Your task to perform on an android device: open app "Spotify" Image 0: 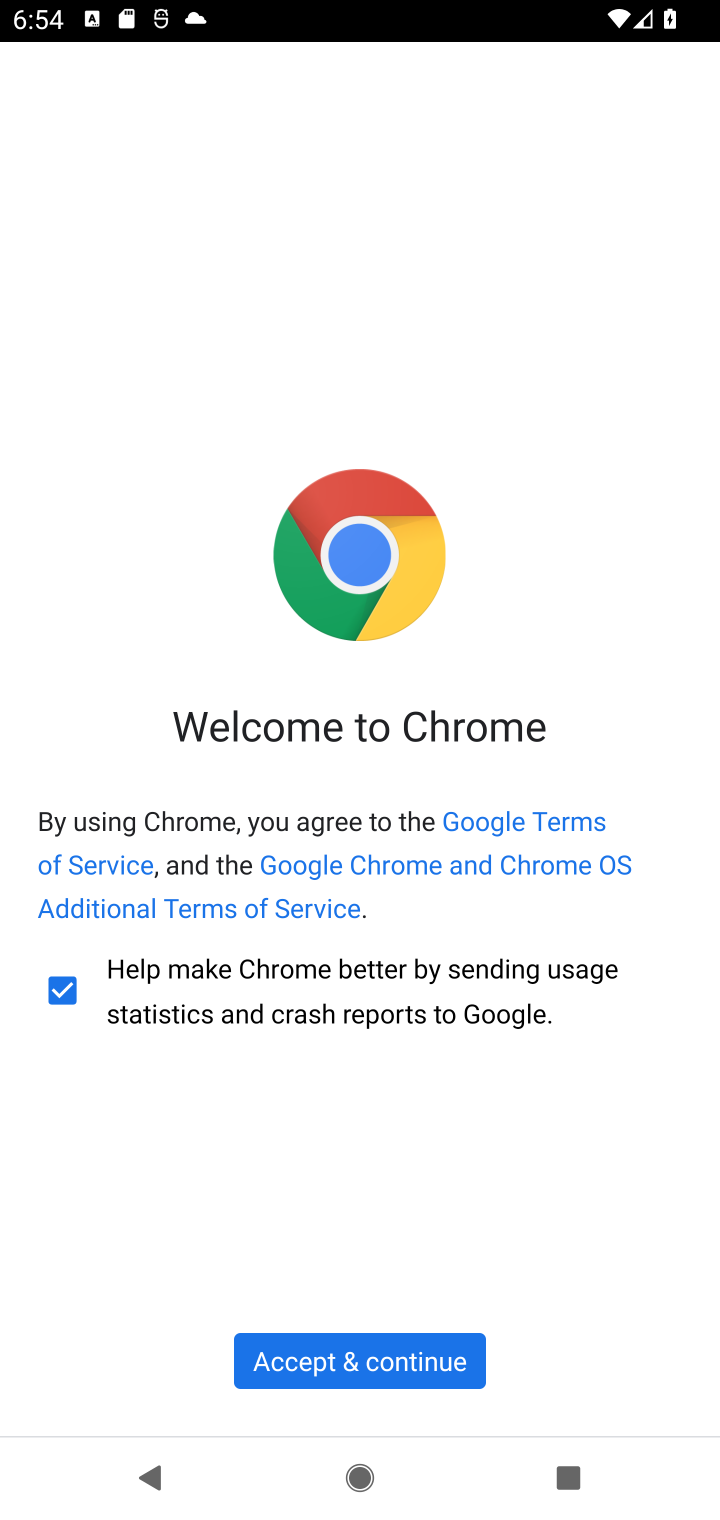
Step 0: press home button
Your task to perform on an android device: open app "Spotify" Image 1: 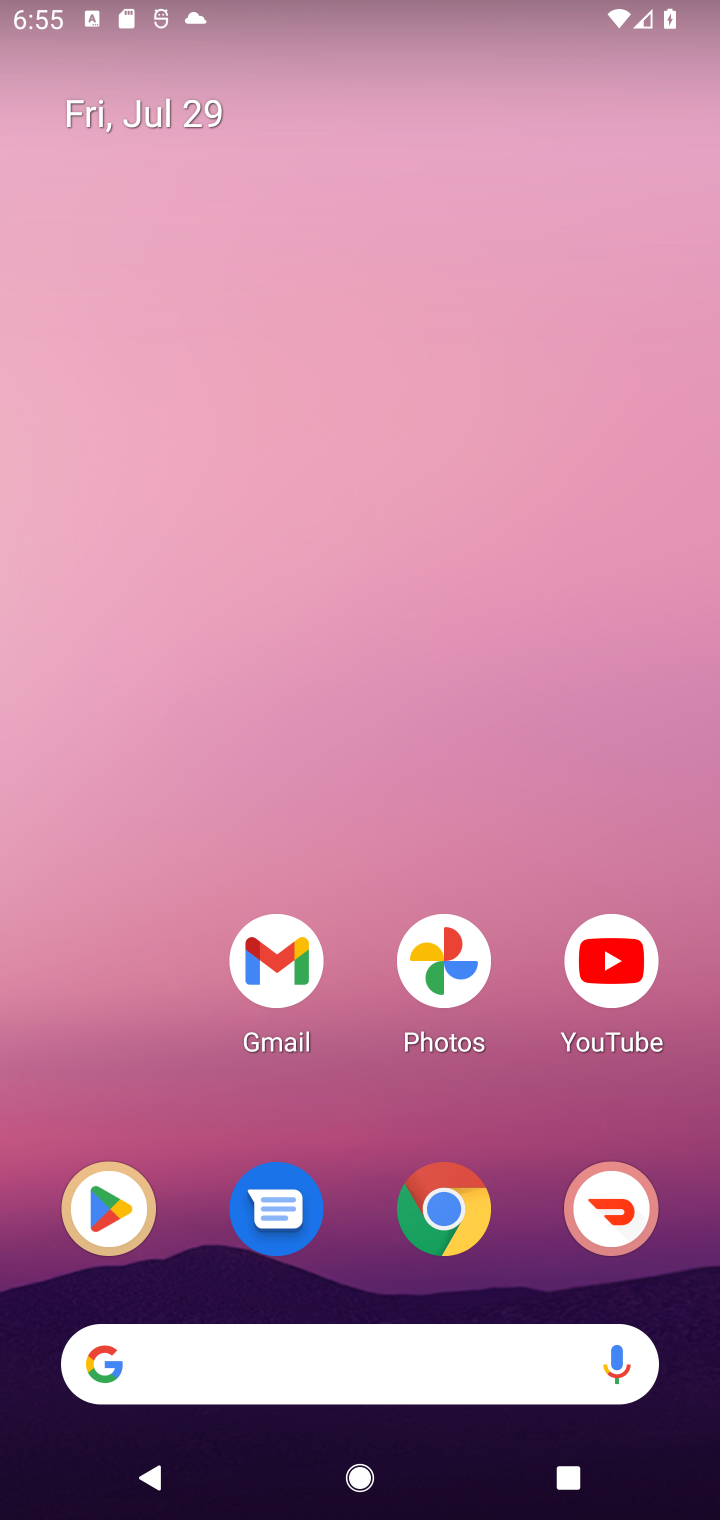
Step 1: click (121, 1236)
Your task to perform on an android device: open app "Spotify" Image 2: 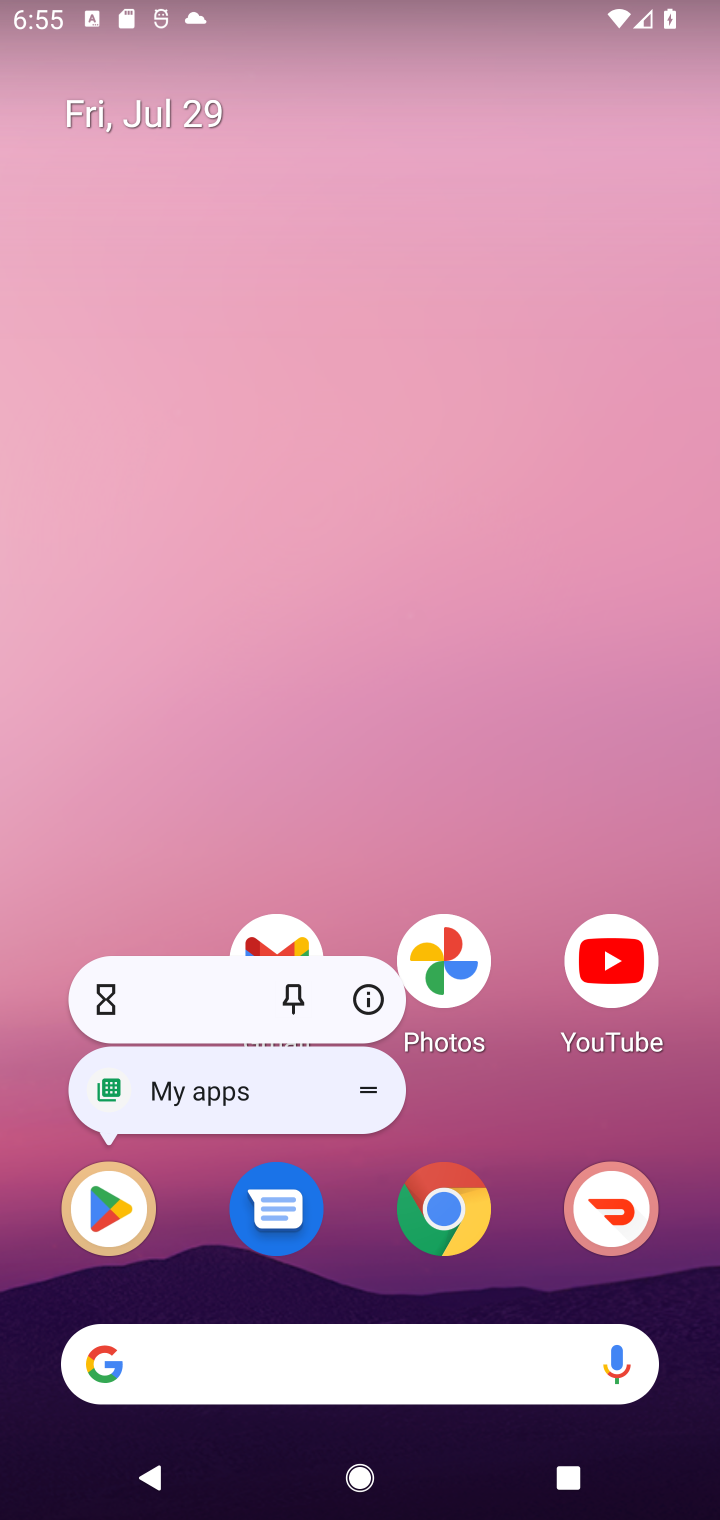
Step 2: click (122, 1217)
Your task to perform on an android device: open app "Spotify" Image 3: 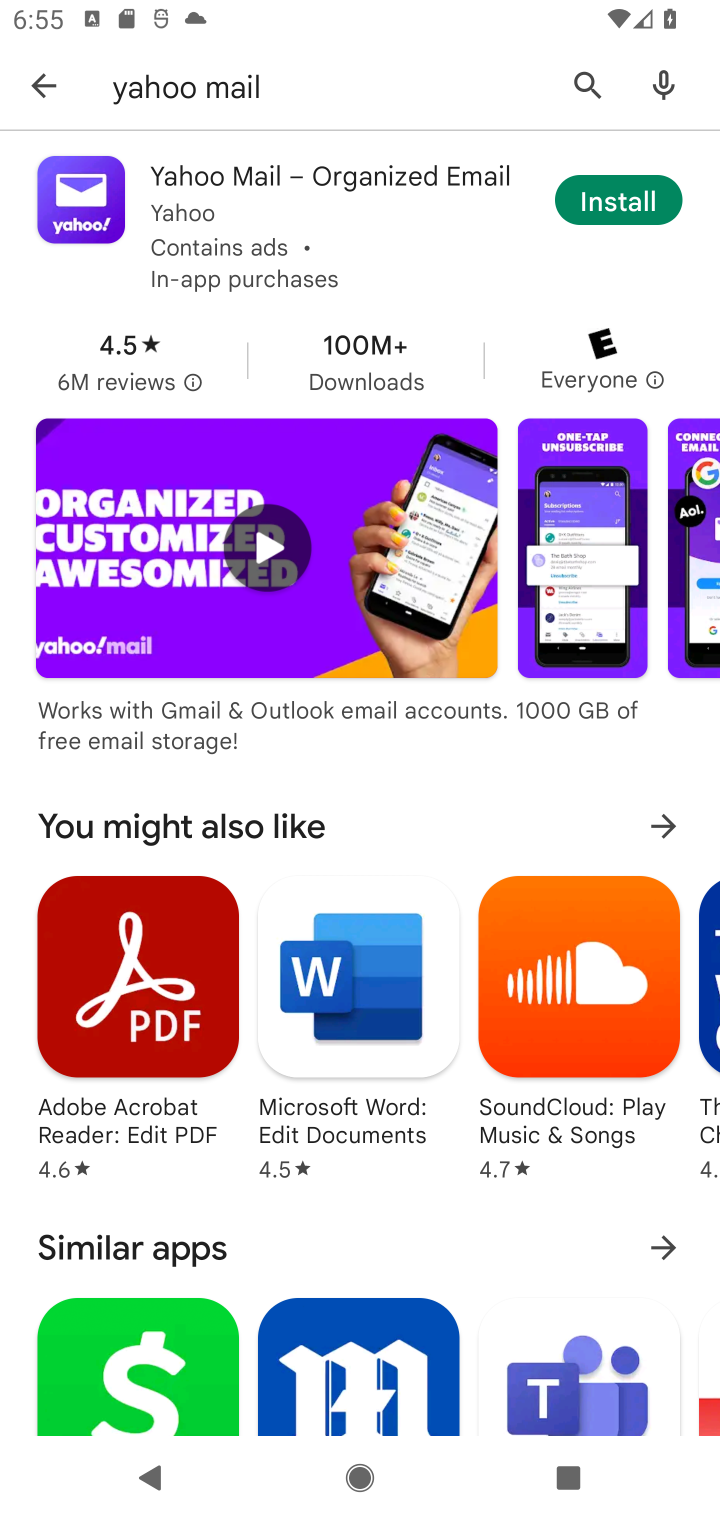
Step 3: click (575, 83)
Your task to perform on an android device: open app "Spotify" Image 4: 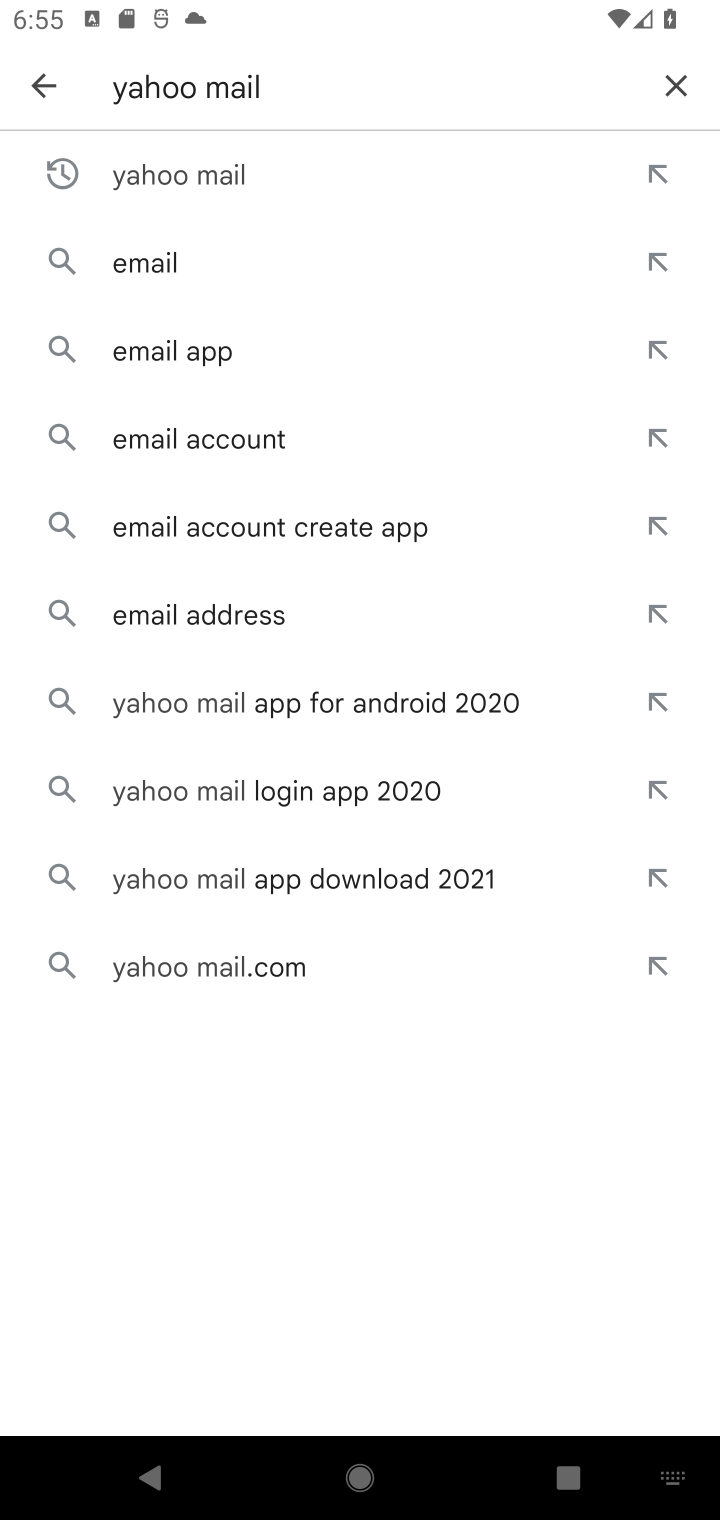
Step 4: click (680, 93)
Your task to perform on an android device: open app "Spotify" Image 5: 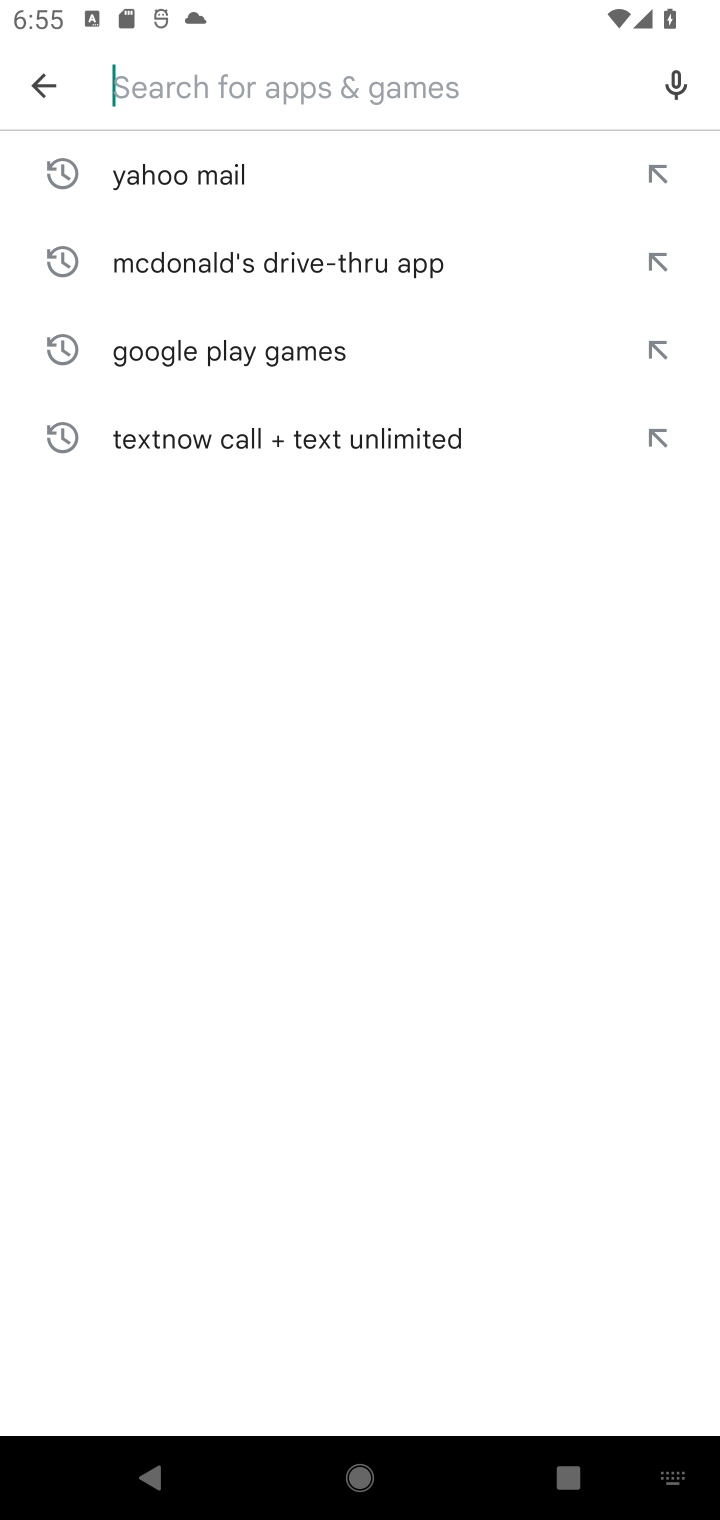
Step 5: type "sportify"
Your task to perform on an android device: open app "Spotify" Image 6: 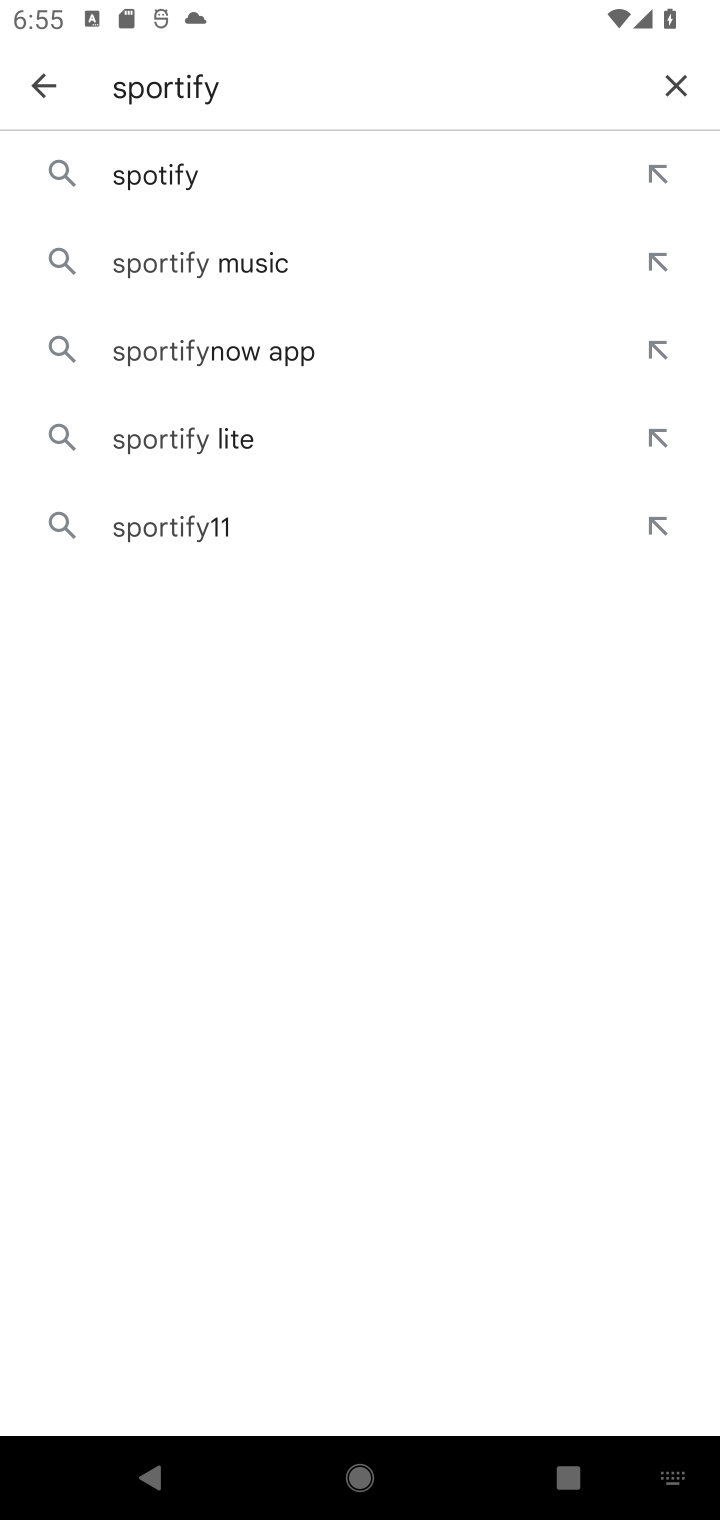
Step 6: click (164, 166)
Your task to perform on an android device: open app "Spotify" Image 7: 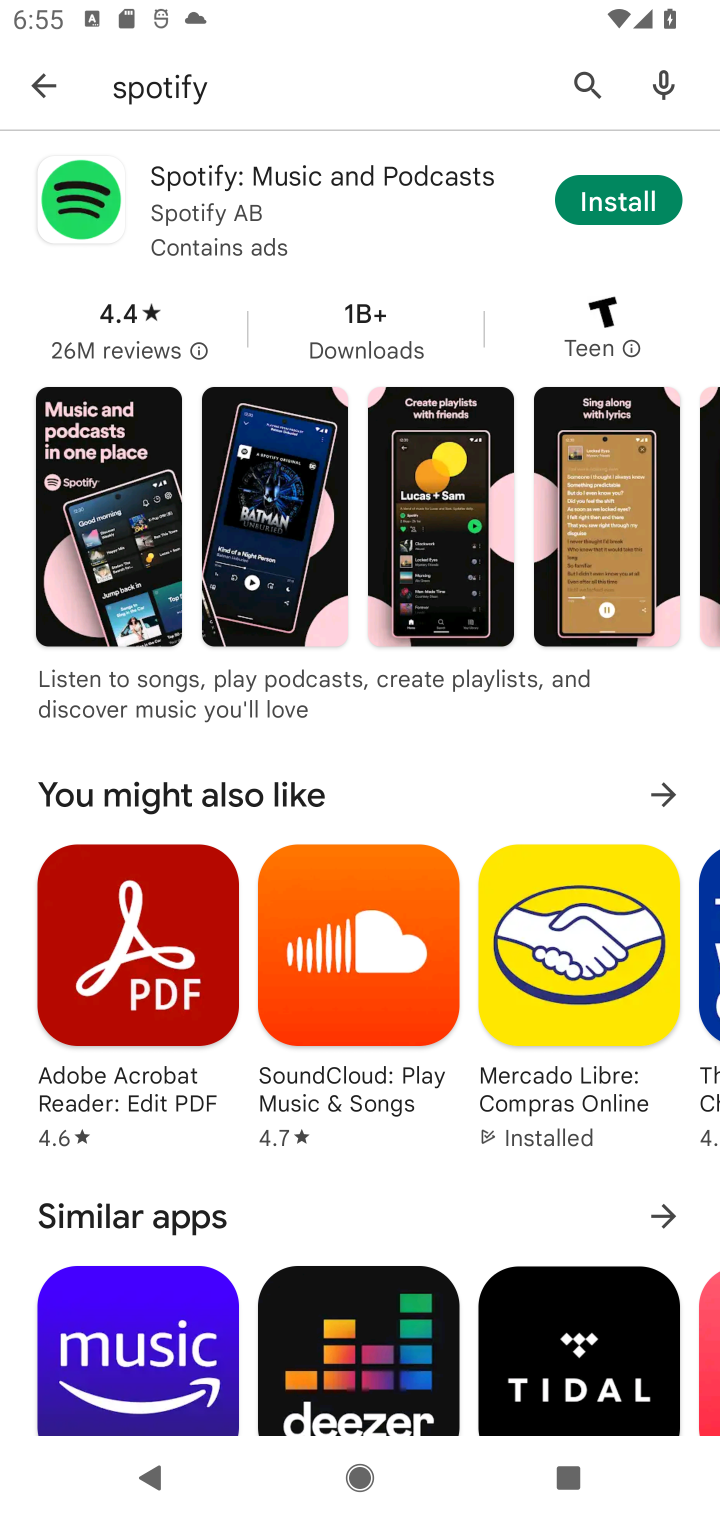
Step 7: task complete